Your task to perform on an android device: allow notifications from all sites in the chrome app Image 0: 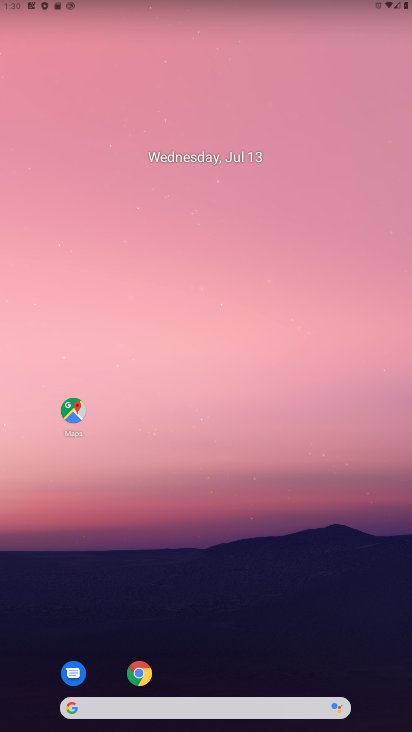
Step 0: drag from (244, 672) to (321, 143)
Your task to perform on an android device: allow notifications from all sites in the chrome app Image 1: 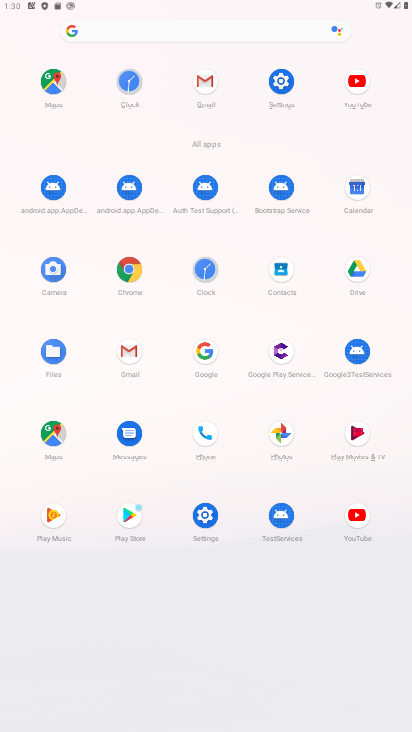
Step 1: click (132, 265)
Your task to perform on an android device: allow notifications from all sites in the chrome app Image 2: 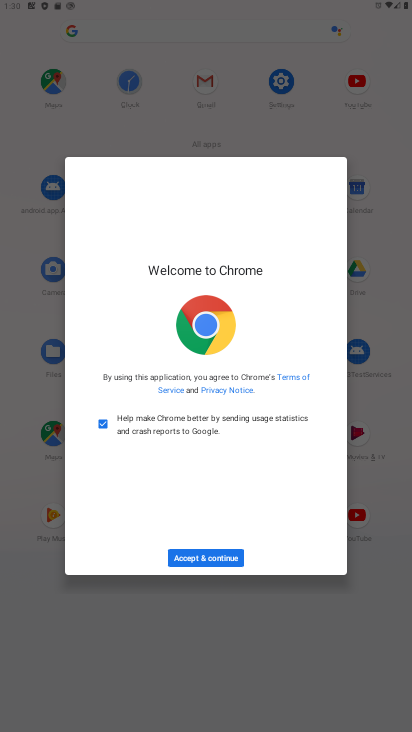
Step 2: click (213, 563)
Your task to perform on an android device: allow notifications from all sites in the chrome app Image 3: 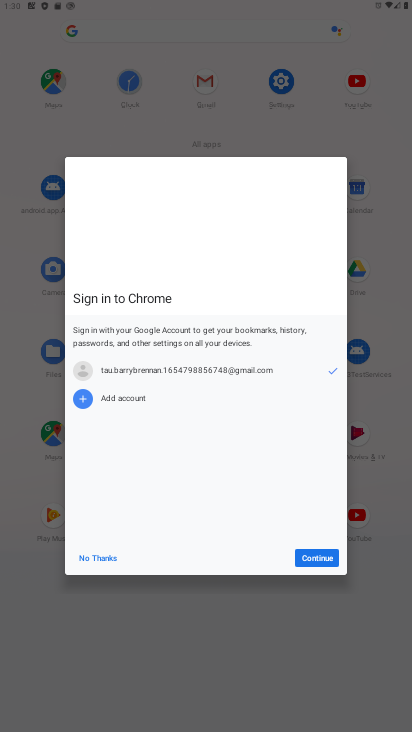
Step 3: click (320, 559)
Your task to perform on an android device: allow notifications from all sites in the chrome app Image 4: 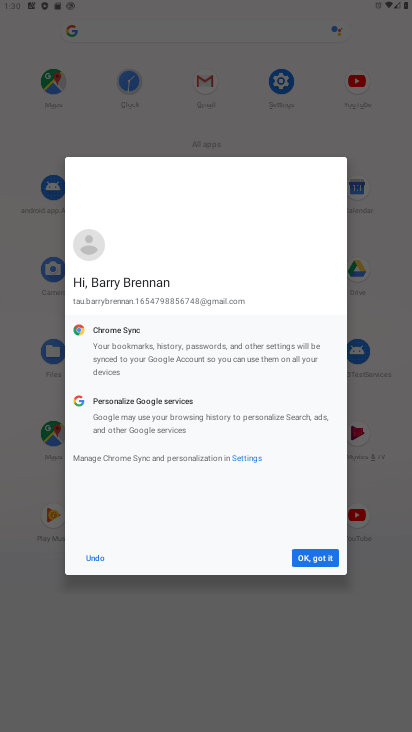
Step 4: click (320, 559)
Your task to perform on an android device: allow notifications from all sites in the chrome app Image 5: 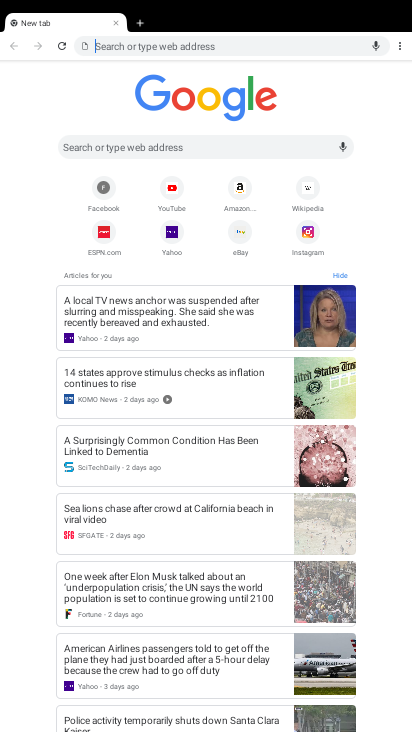
Step 5: click (395, 45)
Your task to perform on an android device: allow notifications from all sites in the chrome app Image 6: 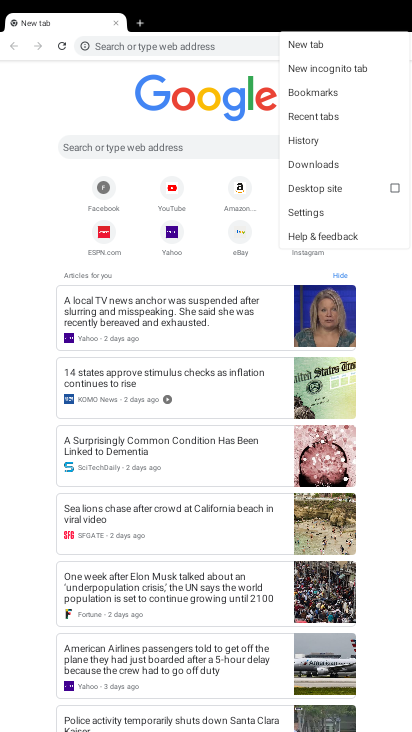
Step 6: click (315, 214)
Your task to perform on an android device: allow notifications from all sites in the chrome app Image 7: 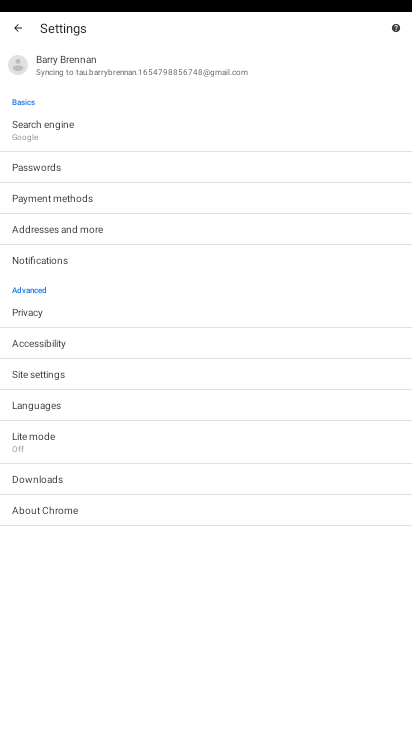
Step 7: click (32, 371)
Your task to perform on an android device: allow notifications from all sites in the chrome app Image 8: 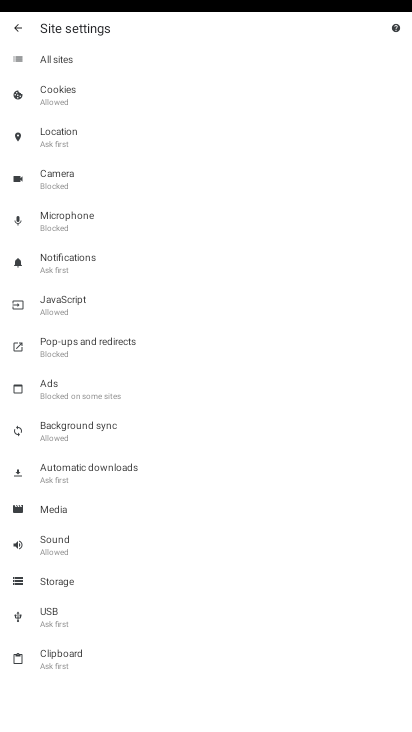
Step 8: click (76, 257)
Your task to perform on an android device: allow notifications from all sites in the chrome app Image 9: 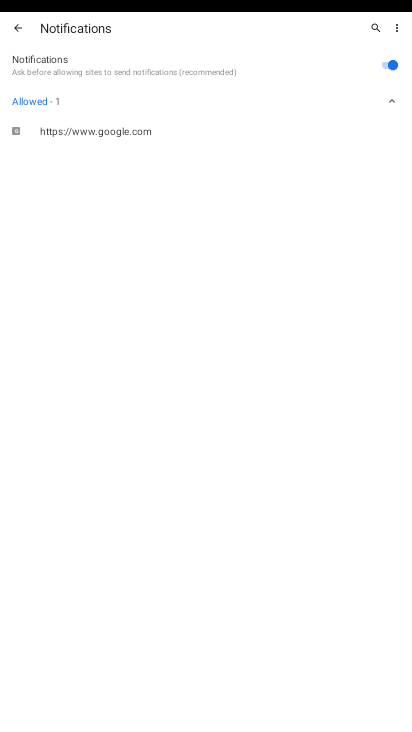
Step 9: task complete